Your task to perform on an android device: turn notification dots on Image 0: 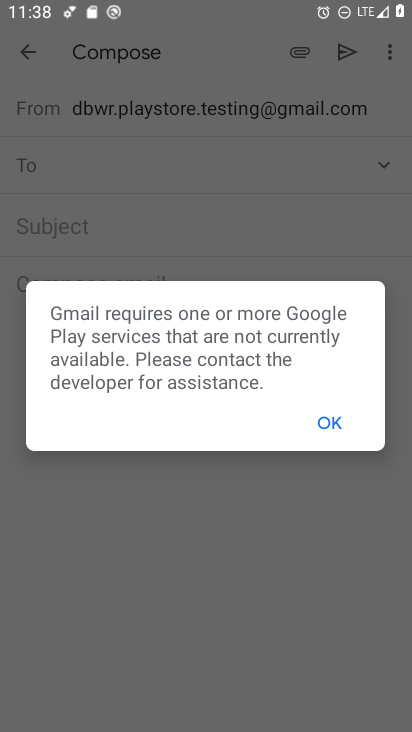
Step 0: press home button
Your task to perform on an android device: turn notification dots on Image 1: 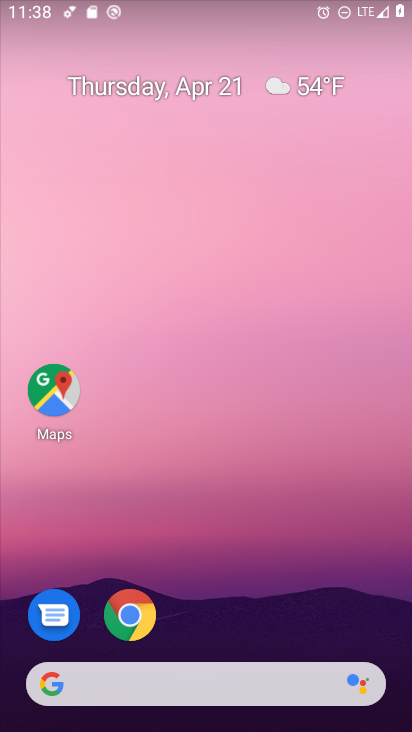
Step 1: drag from (289, 640) to (286, 140)
Your task to perform on an android device: turn notification dots on Image 2: 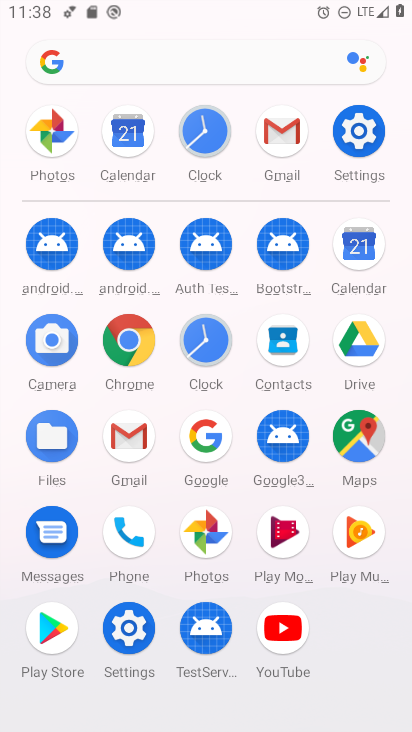
Step 2: click (359, 125)
Your task to perform on an android device: turn notification dots on Image 3: 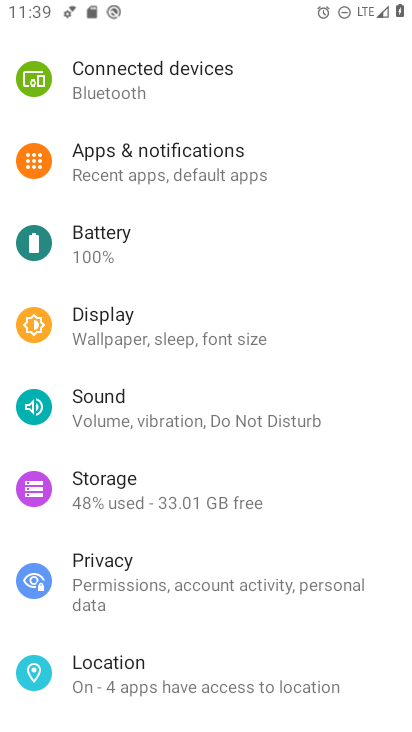
Step 3: click (166, 173)
Your task to perform on an android device: turn notification dots on Image 4: 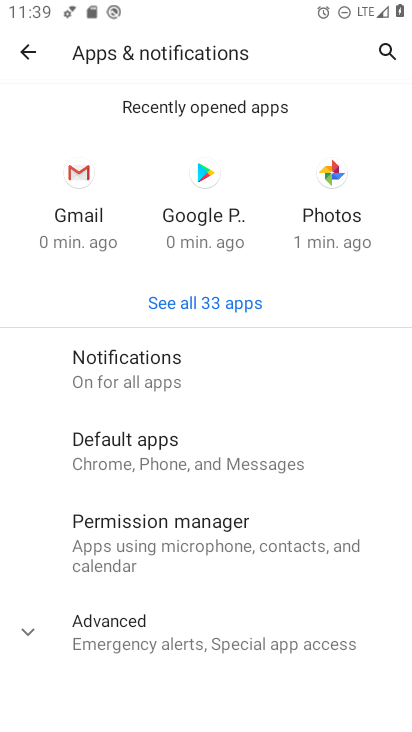
Step 4: click (181, 366)
Your task to perform on an android device: turn notification dots on Image 5: 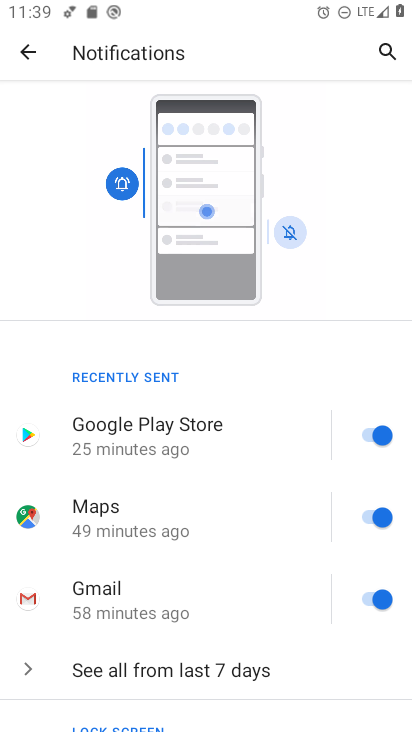
Step 5: drag from (201, 706) to (246, 504)
Your task to perform on an android device: turn notification dots on Image 6: 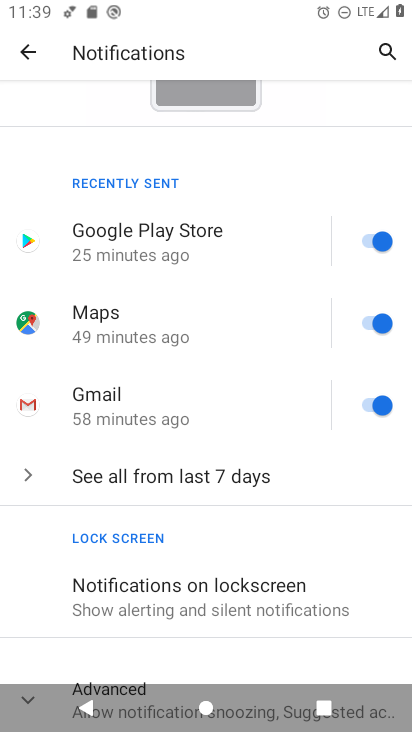
Step 6: drag from (240, 607) to (257, 466)
Your task to perform on an android device: turn notification dots on Image 7: 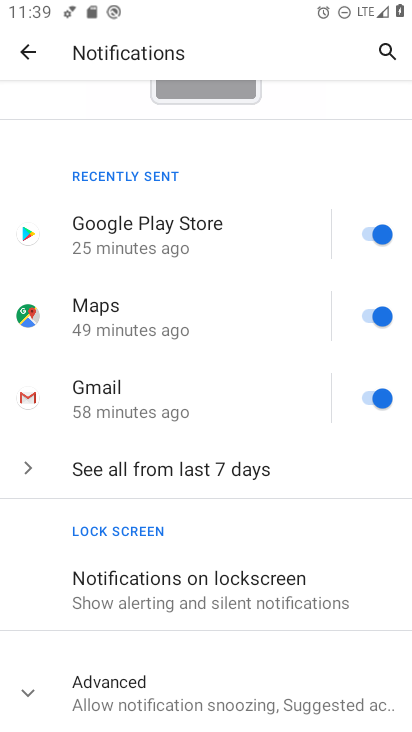
Step 7: click (226, 707)
Your task to perform on an android device: turn notification dots on Image 8: 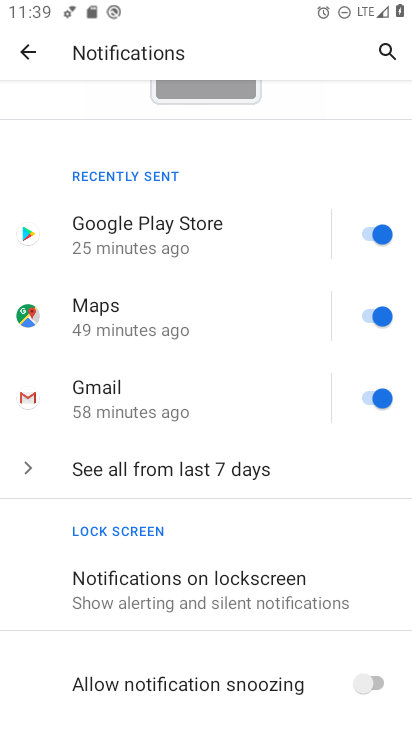
Step 8: drag from (205, 652) to (253, 494)
Your task to perform on an android device: turn notification dots on Image 9: 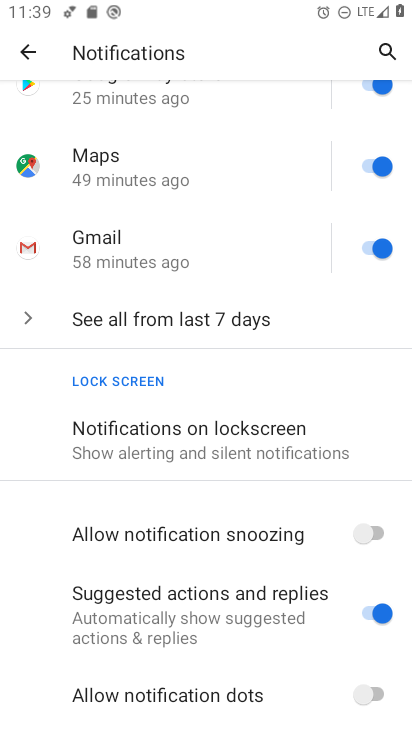
Step 9: click (364, 699)
Your task to perform on an android device: turn notification dots on Image 10: 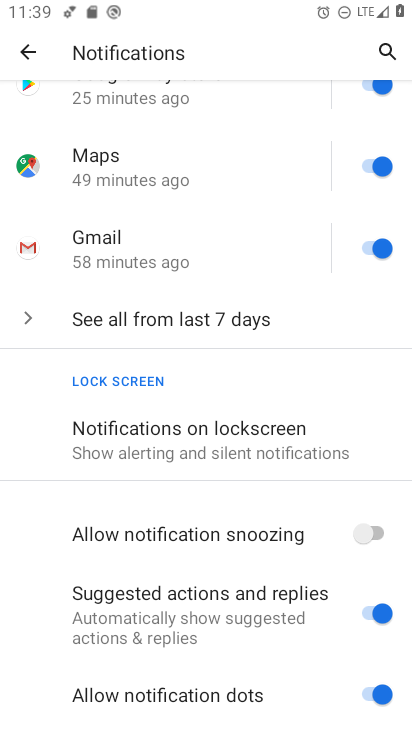
Step 10: task complete